Your task to perform on an android device: Search for "alienware area 51" on costco.com, select the first entry, add it to the cart, then select checkout. Image 0: 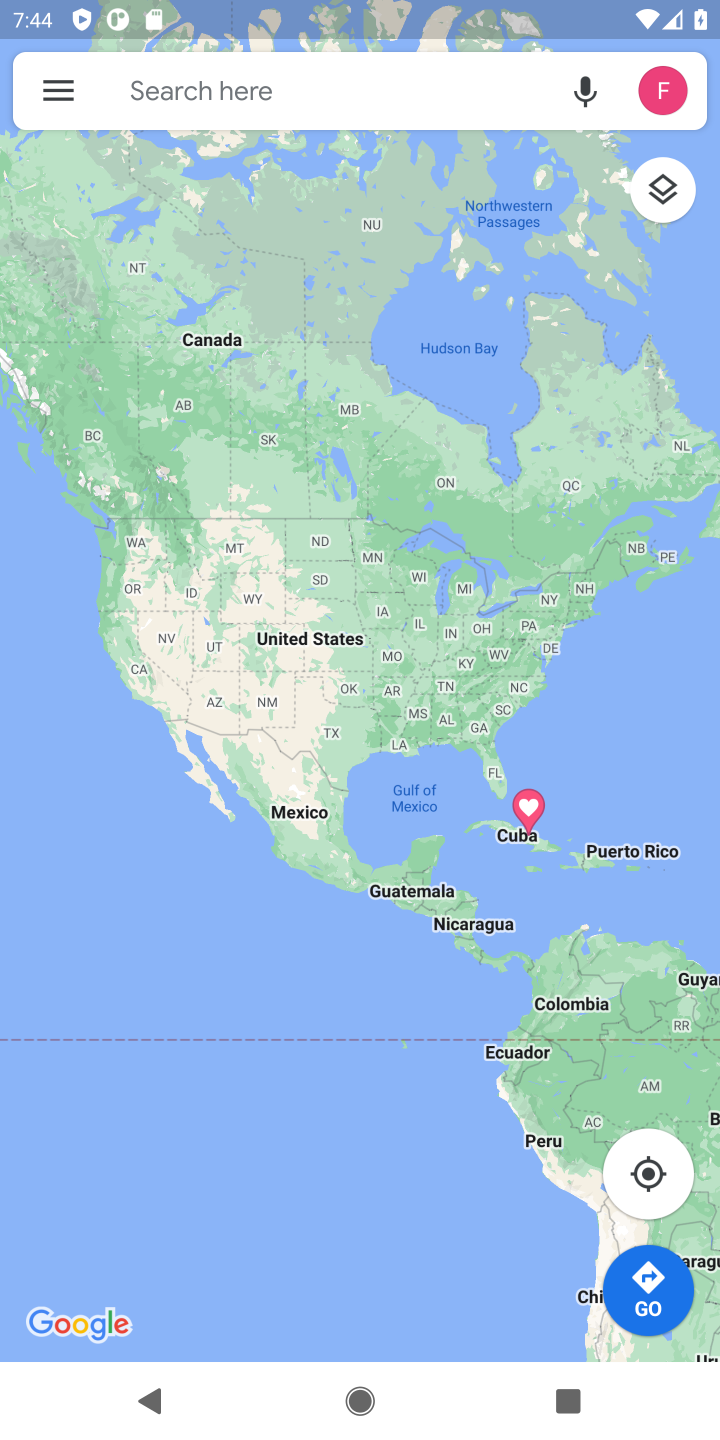
Step 0: press home button
Your task to perform on an android device: Search for "alienware area 51" on costco.com, select the first entry, add it to the cart, then select checkout. Image 1: 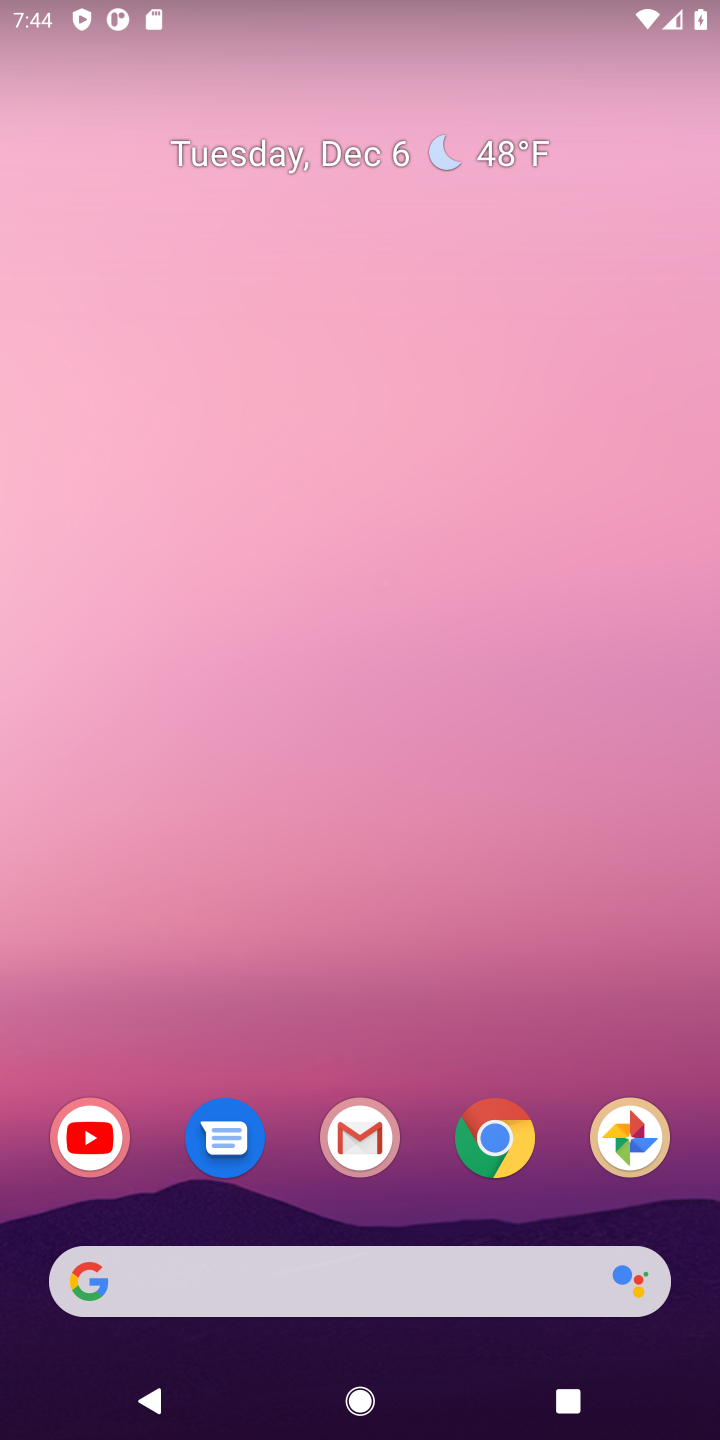
Step 1: click (482, 1148)
Your task to perform on an android device: Search for "alienware area 51" on costco.com, select the first entry, add it to the cart, then select checkout. Image 2: 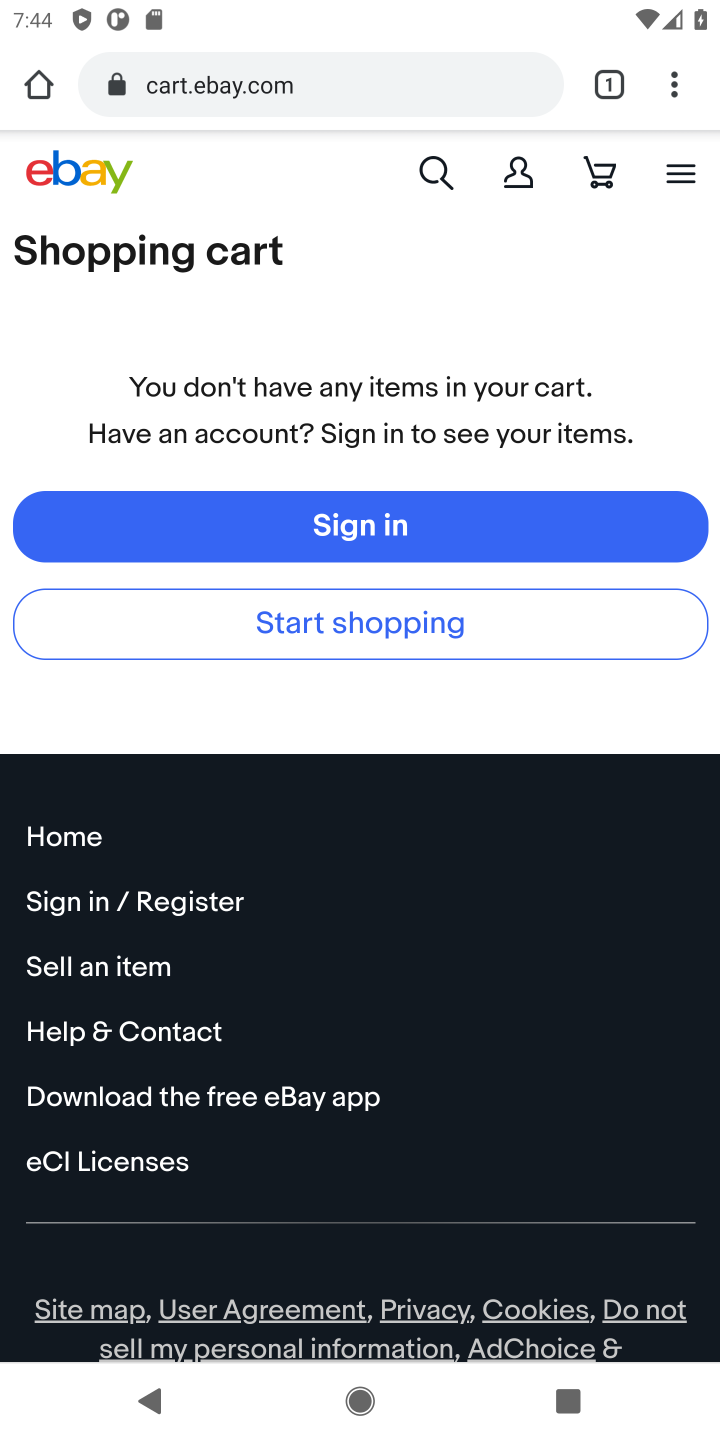
Step 2: click (187, 84)
Your task to perform on an android device: Search for "alienware area 51" on costco.com, select the first entry, add it to the cart, then select checkout. Image 3: 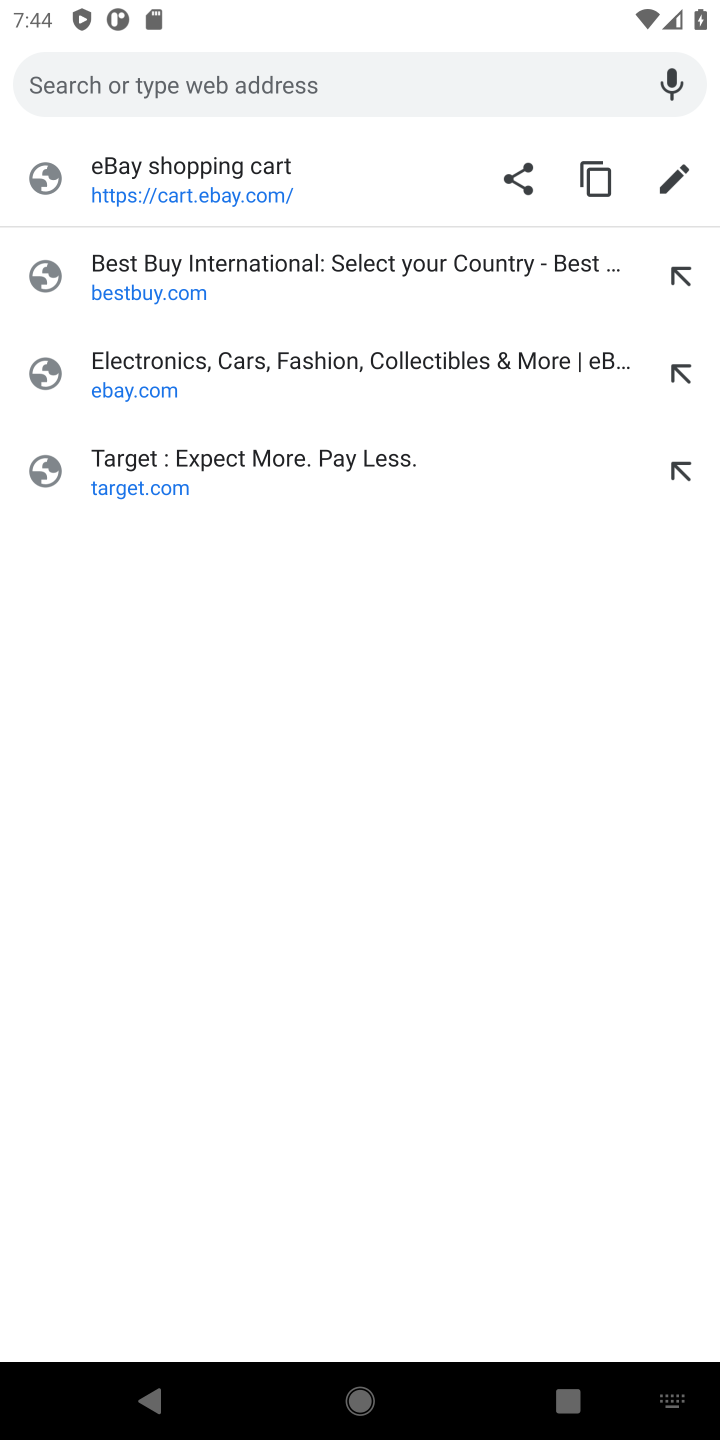
Step 3: type "costco.com"
Your task to perform on an android device: Search for "alienware area 51" on costco.com, select the first entry, add it to the cart, then select checkout. Image 4: 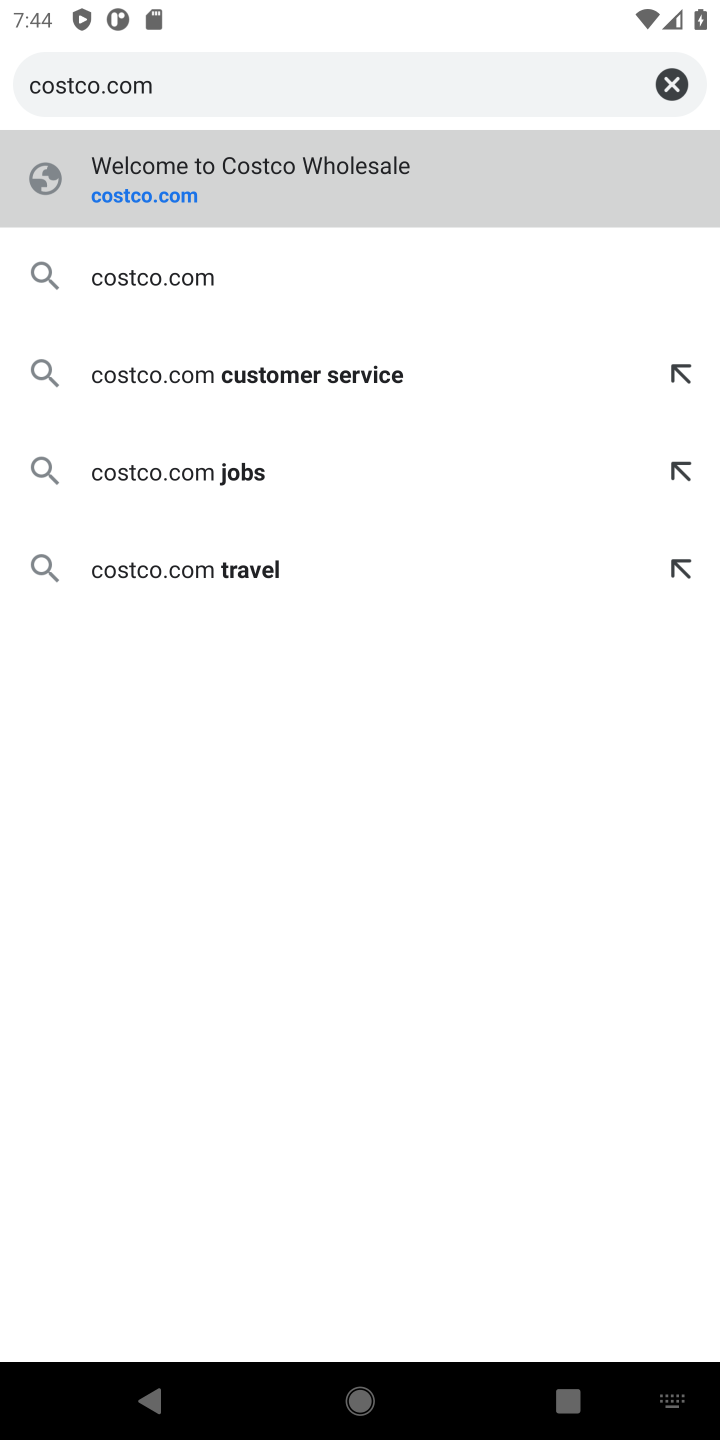
Step 4: click (134, 173)
Your task to perform on an android device: Search for "alienware area 51" on costco.com, select the first entry, add it to the cart, then select checkout. Image 5: 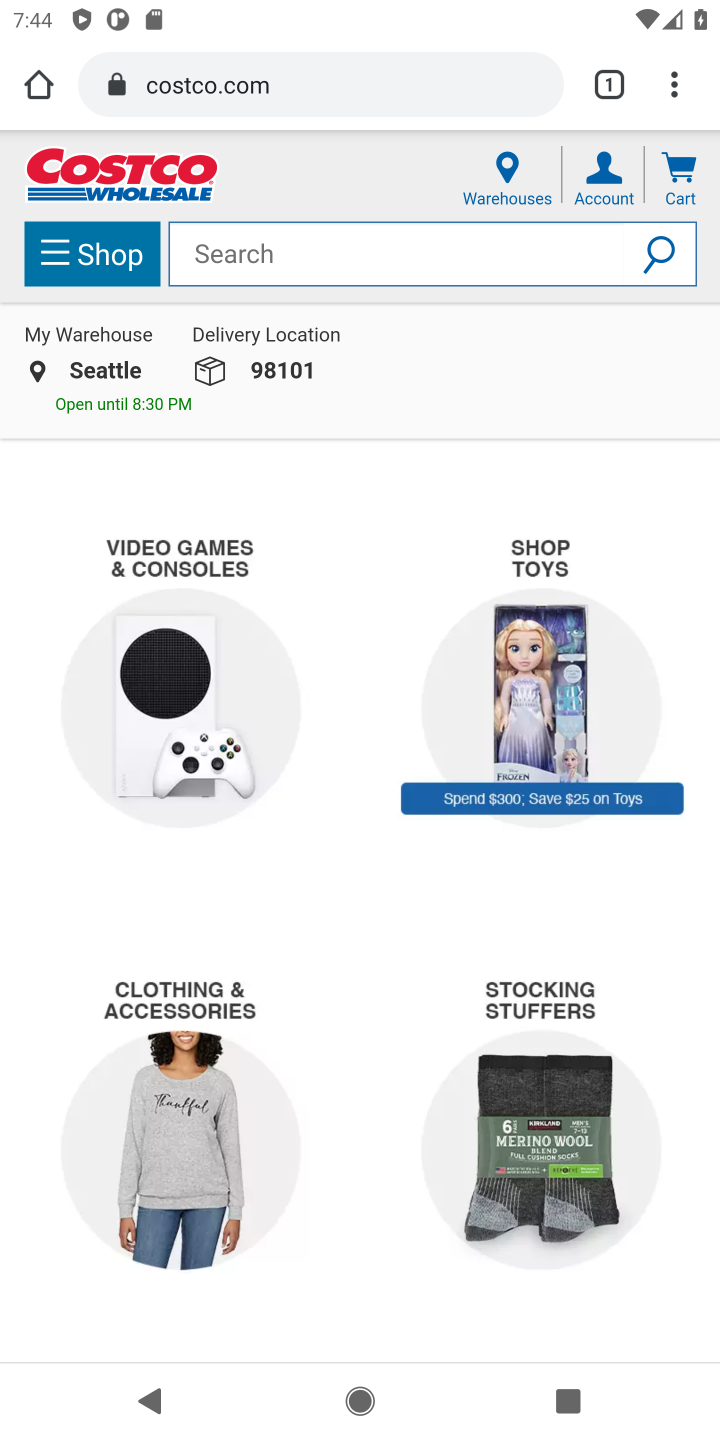
Step 5: click (224, 240)
Your task to perform on an android device: Search for "alienware area 51" on costco.com, select the first entry, add it to the cart, then select checkout. Image 6: 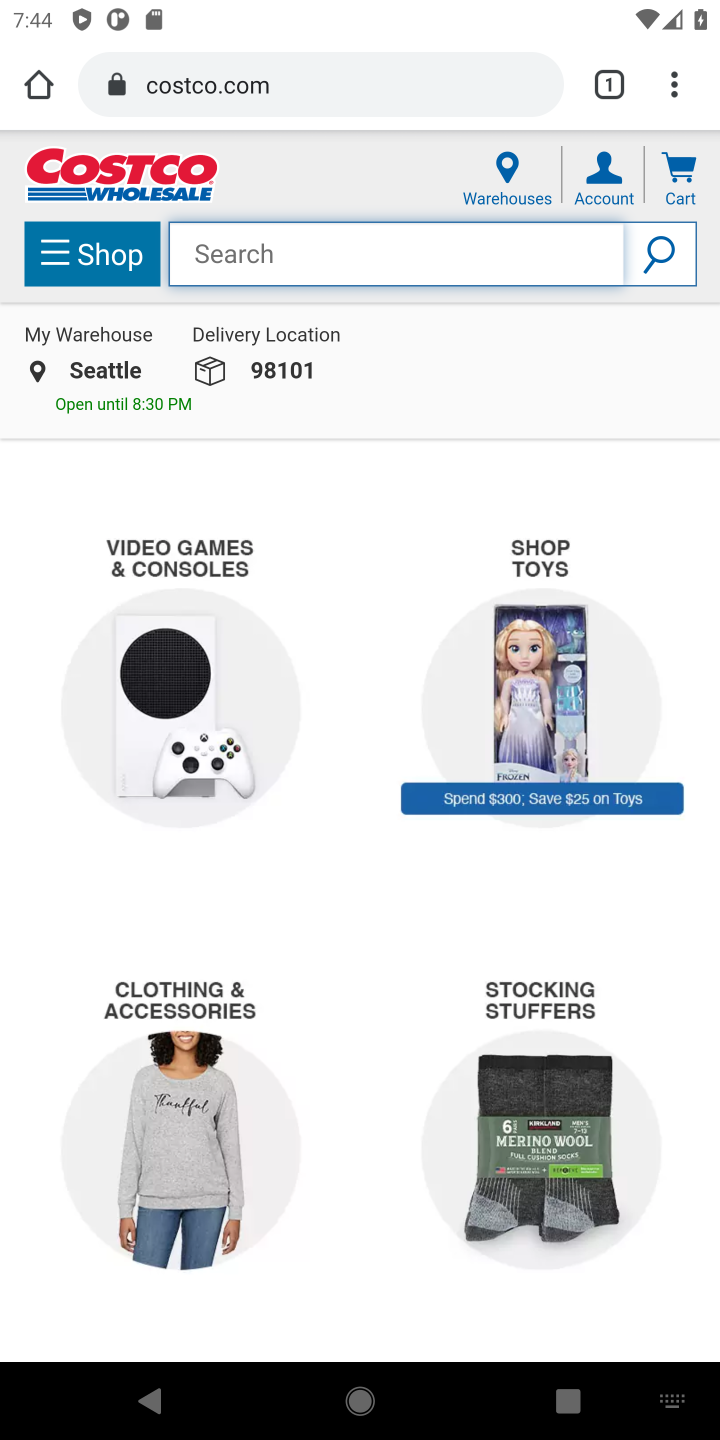
Step 6: type "alienware area 51"
Your task to perform on an android device: Search for "alienware area 51" on costco.com, select the first entry, add it to the cart, then select checkout. Image 7: 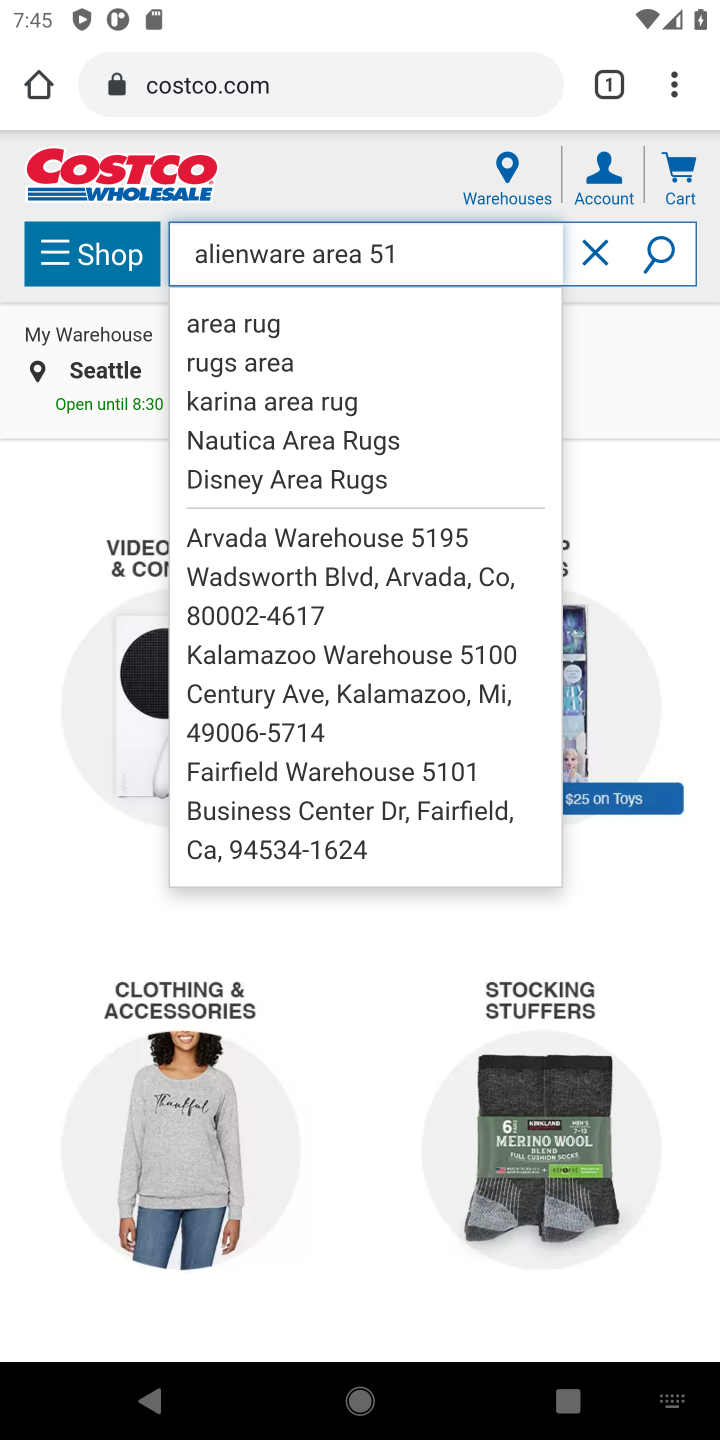
Step 7: click (678, 253)
Your task to perform on an android device: Search for "alienware area 51" on costco.com, select the first entry, add it to the cart, then select checkout. Image 8: 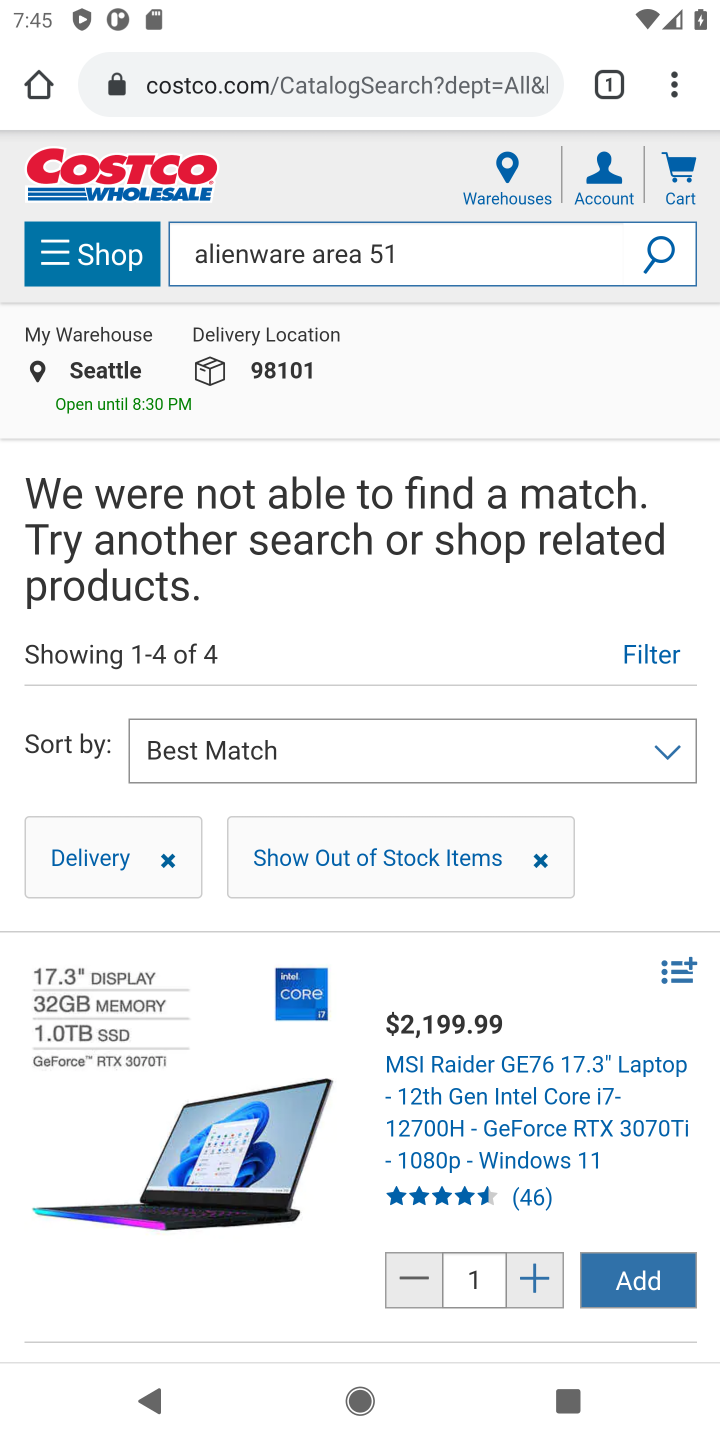
Step 8: task complete